Your task to perform on an android device: turn on sleep mode Image 0: 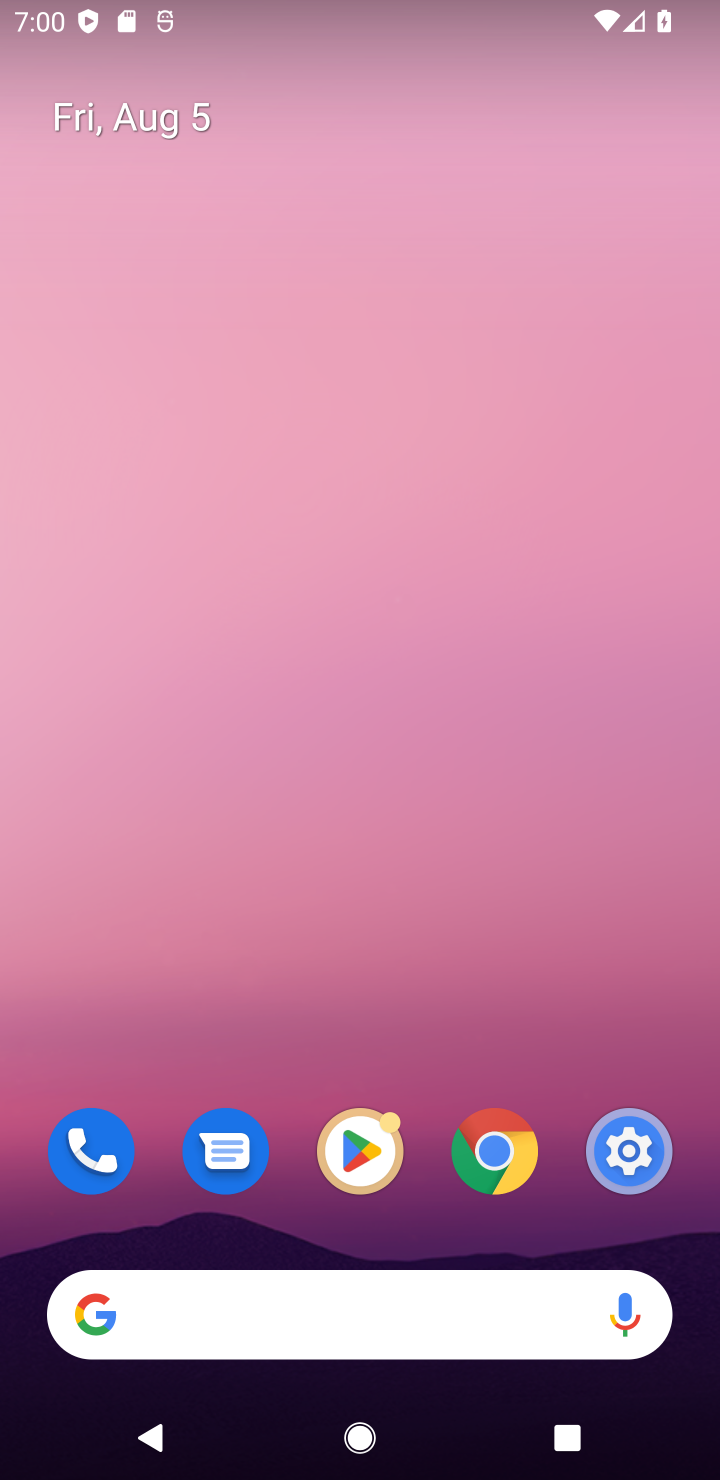
Step 0: drag from (338, 1249) to (308, 129)
Your task to perform on an android device: turn on sleep mode Image 1: 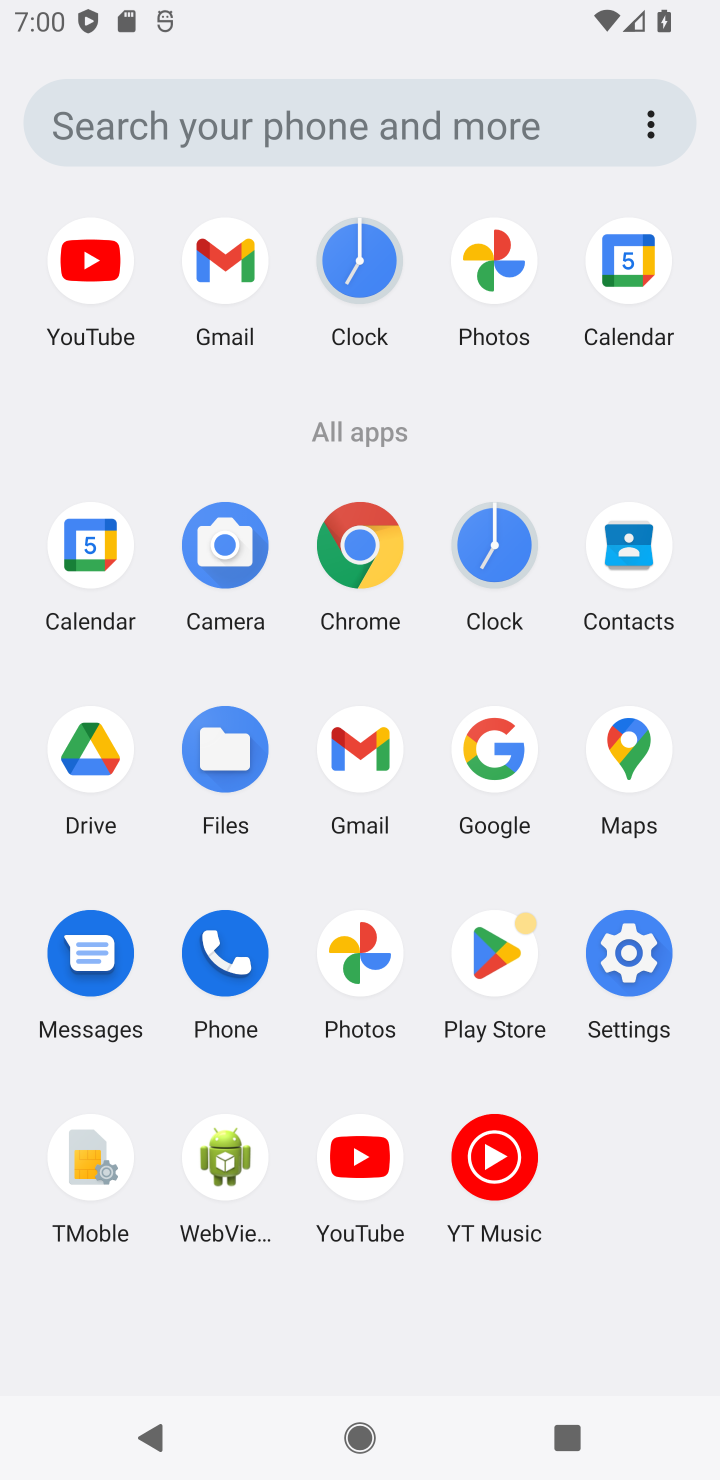
Step 1: click (652, 970)
Your task to perform on an android device: turn on sleep mode Image 2: 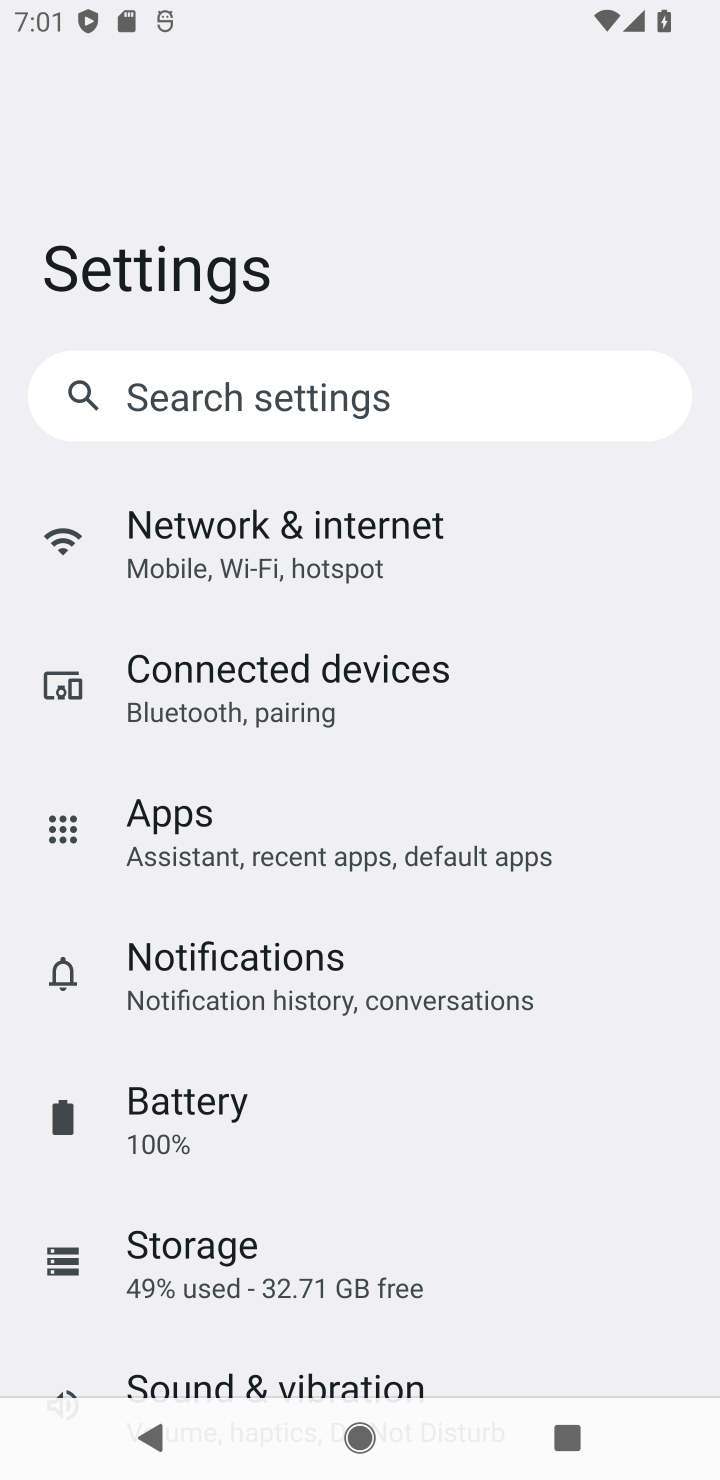
Step 2: task complete